Your task to perform on an android device: Go to network settings Image 0: 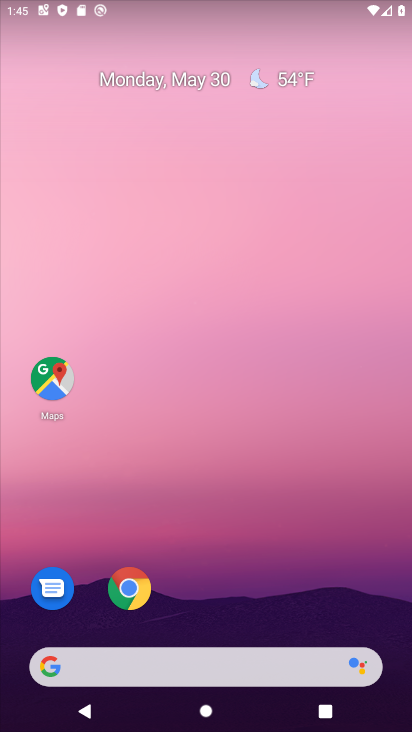
Step 0: drag from (204, 566) to (301, 199)
Your task to perform on an android device: Go to network settings Image 1: 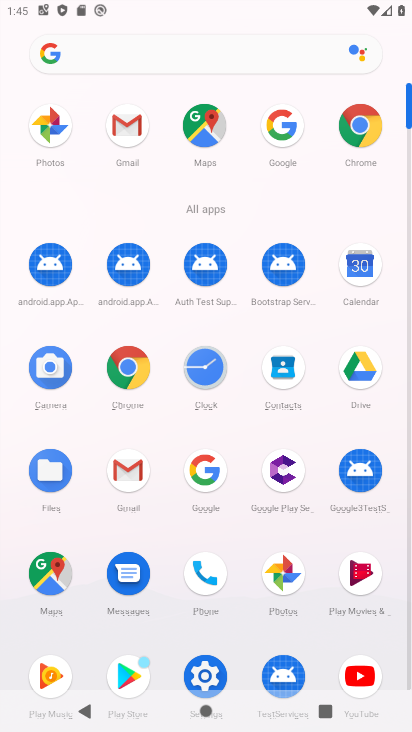
Step 1: click (199, 673)
Your task to perform on an android device: Go to network settings Image 2: 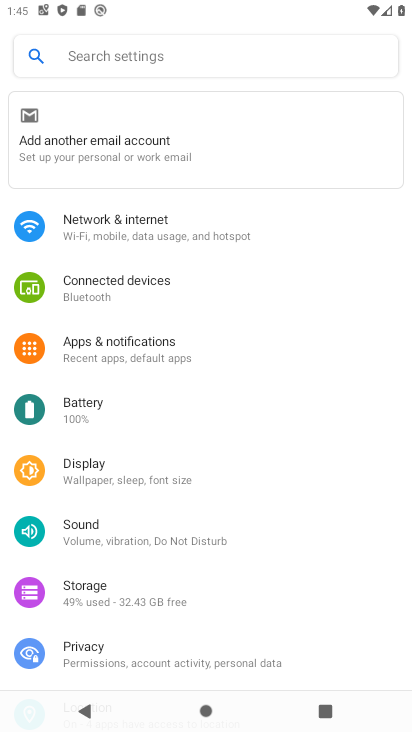
Step 2: click (126, 232)
Your task to perform on an android device: Go to network settings Image 3: 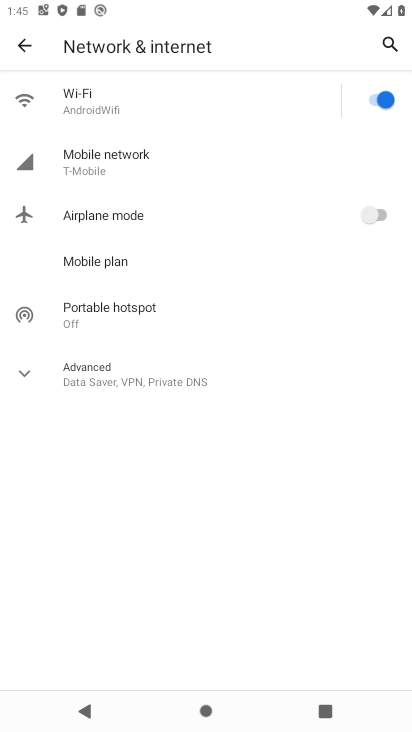
Step 3: click (111, 164)
Your task to perform on an android device: Go to network settings Image 4: 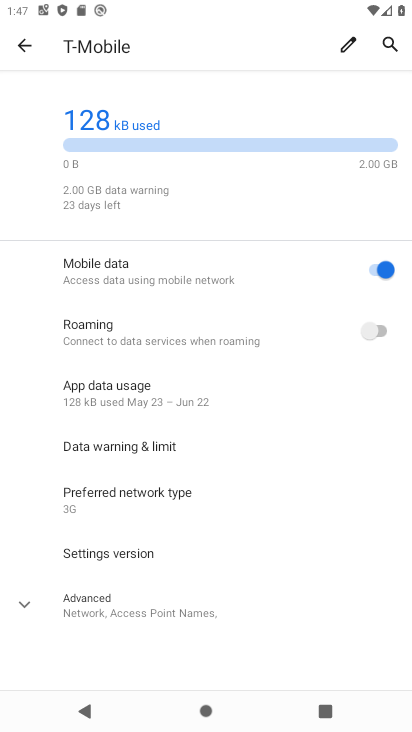
Step 4: task complete